Your task to perform on an android device: Open Yahoo.com Image 0: 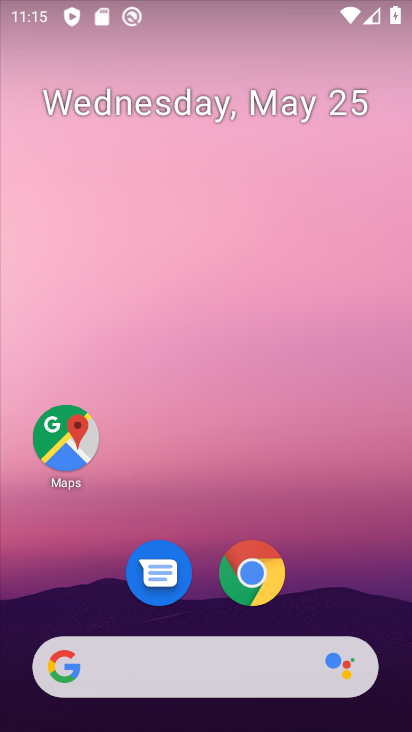
Step 0: click (230, 591)
Your task to perform on an android device: Open Yahoo.com Image 1: 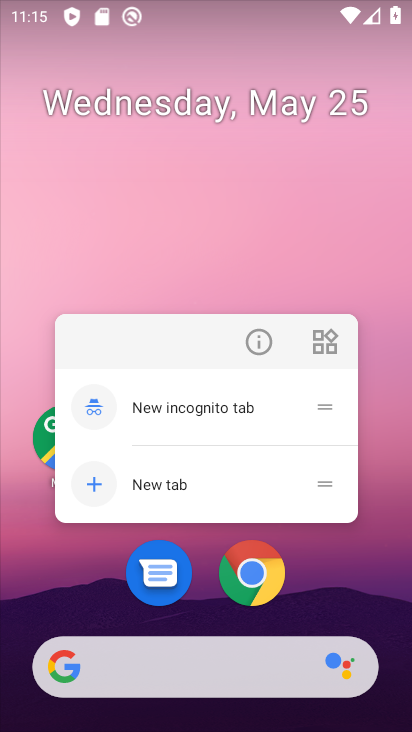
Step 1: click (249, 571)
Your task to perform on an android device: Open Yahoo.com Image 2: 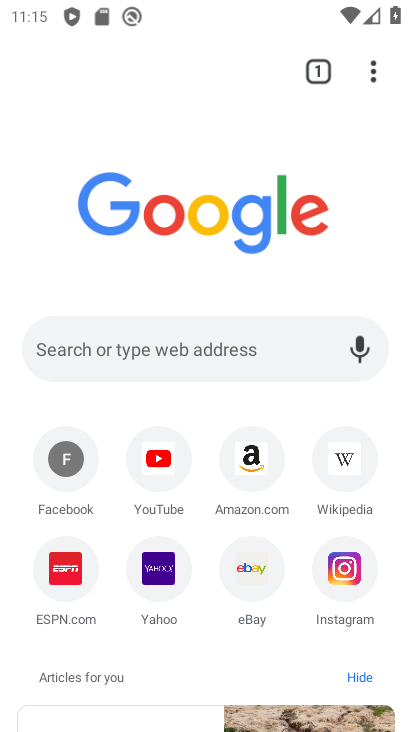
Step 2: click (159, 589)
Your task to perform on an android device: Open Yahoo.com Image 3: 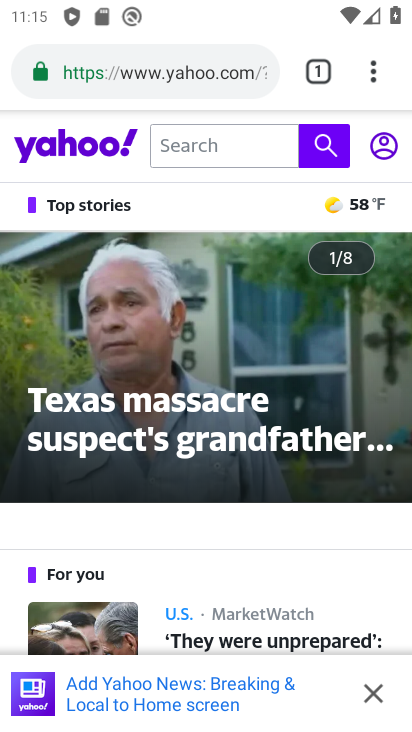
Step 3: task complete